Your task to perform on an android device: see sites visited before in the chrome app Image 0: 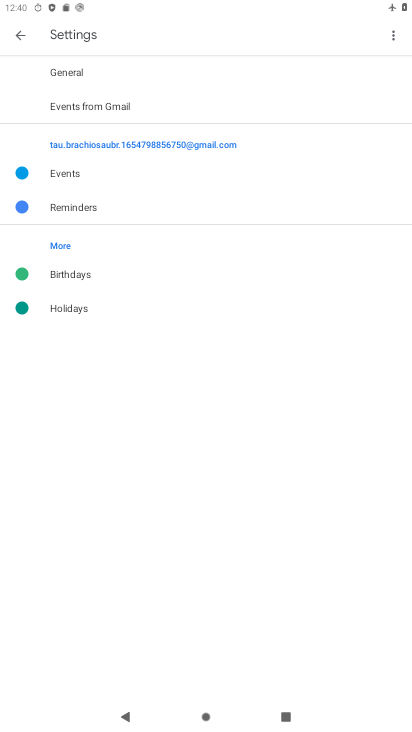
Step 0: press home button
Your task to perform on an android device: see sites visited before in the chrome app Image 1: 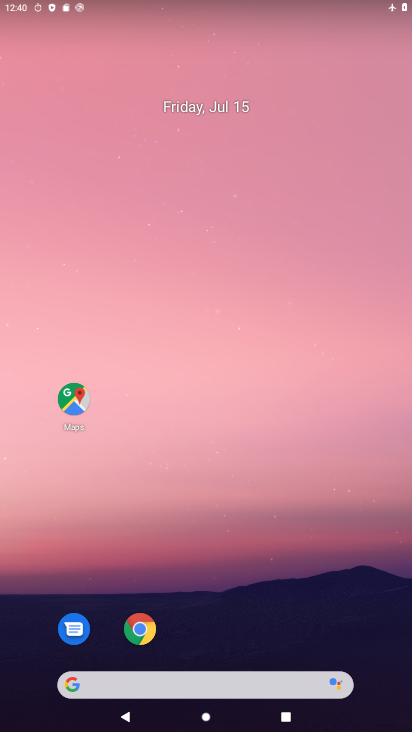
Step 1: drag from (194, 614) to (176, 31)
Your task to perform on an android device: see sites visited before in the chrome app Image 2: 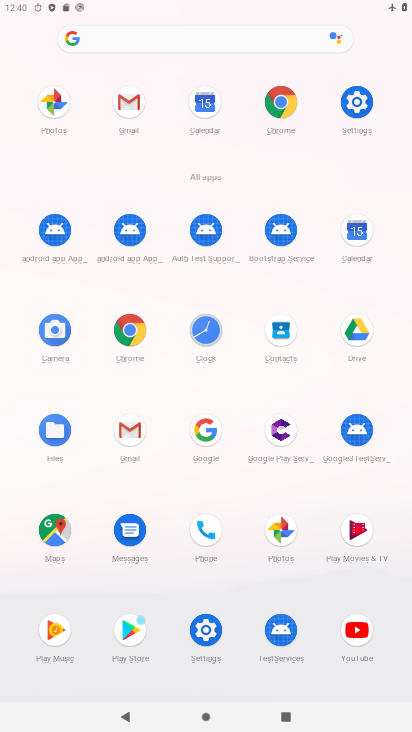
Step 2: click (136, 334)
Your task to perform on an android device: see sites visited before in the chrome app Image 3: 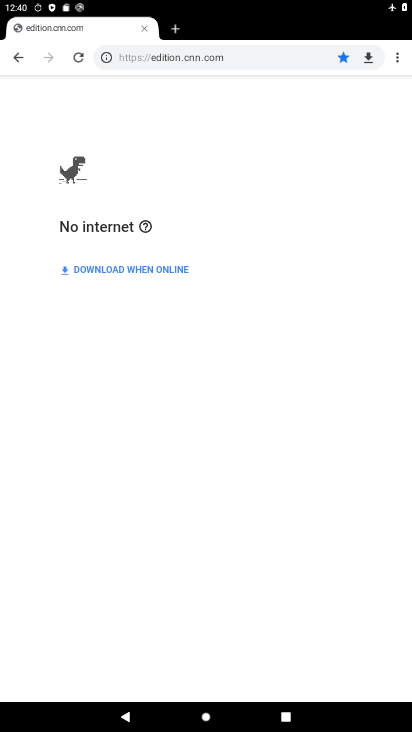
Step 3: drag from (328, 305) to (329, 590)
Your task to perform on an android device: see sites visited before in the chrome app Image 4: 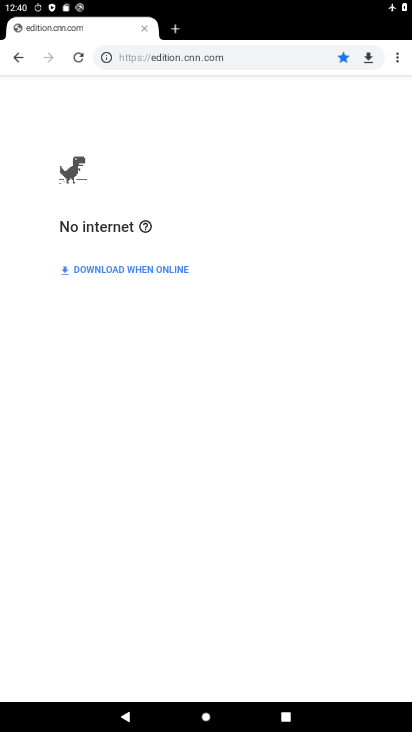
Step 4: click (395, 58)
Your task to perform on an android device: see sites visited before in the chrome app Image 5: 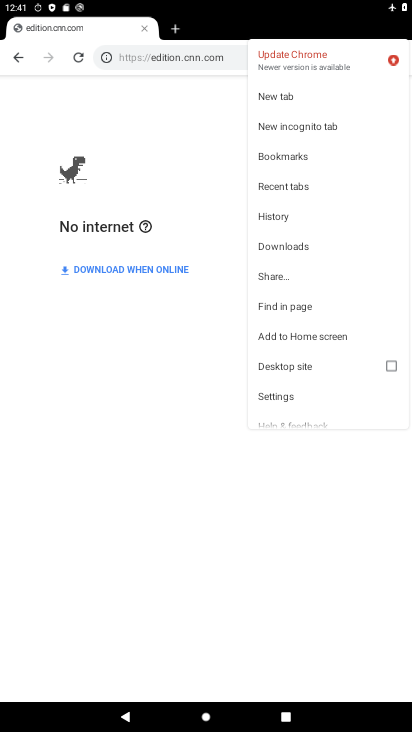
Step 5: click (275, 224)
Your task to perform on an android device: see sites visited before in the chrome app Image 6: 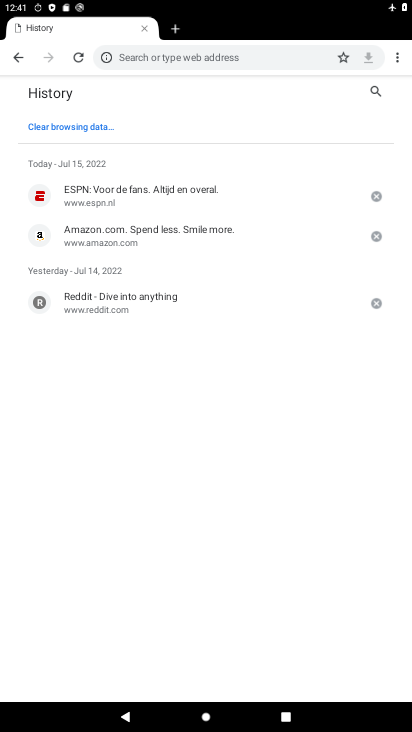
Step 6: task complete